Your task to perform on an android device: change the clock display to show seconds Image 0: 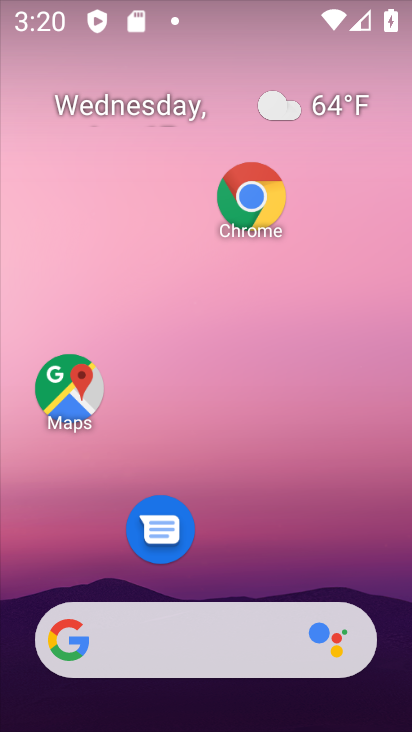
Step 0: drag from (289, 616) to (342, 180)
Your task to perform on an android device: change the clock display to show seconds Image 1: 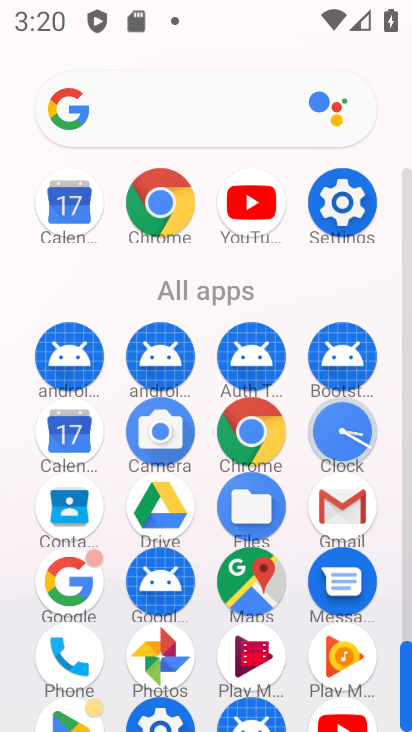
Step 1: click (330, 444)
Your task to perform on an android device: change the clock display to show seconds Image 2: 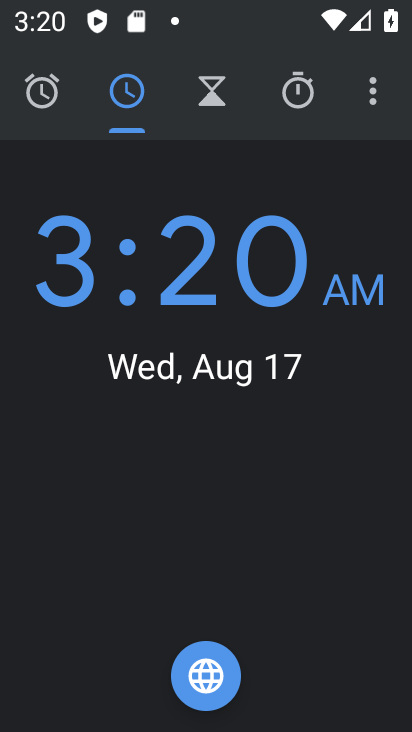
Step 2: click (376, 94)
Your task to perform on an android device: change the clock display to show seconds Image 3: 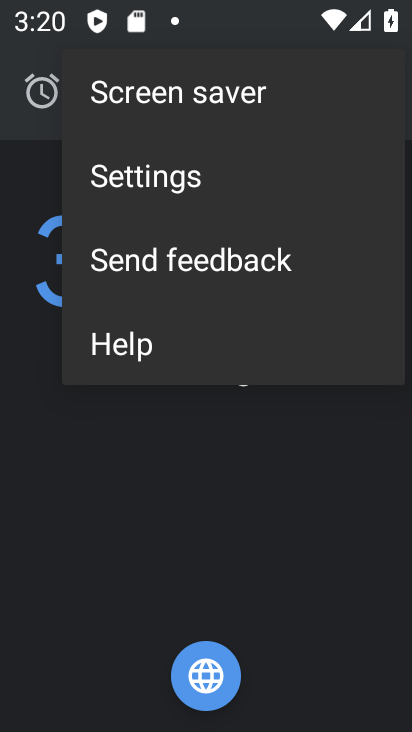
Step 3: click (203, 183)
Your task to perform on an android device: change the clock display to show seconds Image 4: 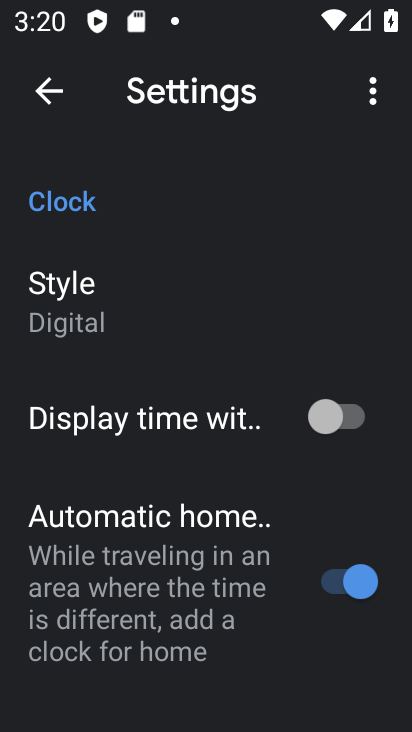
Step 4: click (345, 417)
Your task to perform on an android device: change the clock display to show seconds Image 5: 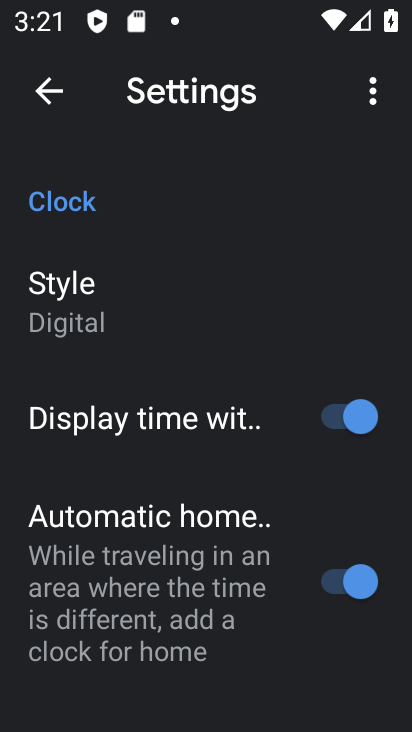
Step 5: task complete